Your task to perform on an android device: Go to Google maps Image 0: 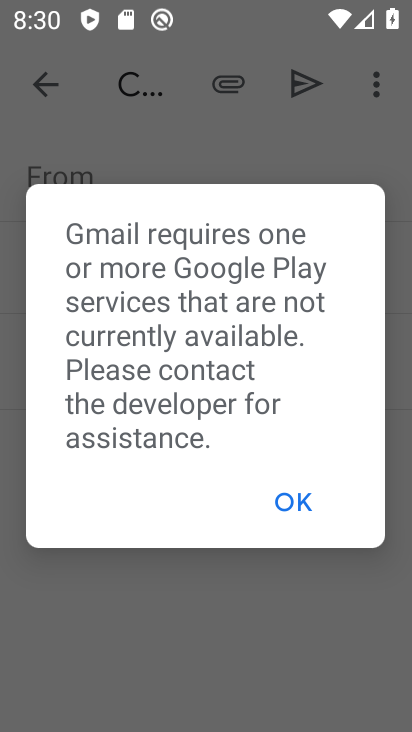
Step 0: press home button
Your task to perform on an android device: Go to Google maps Image 1: 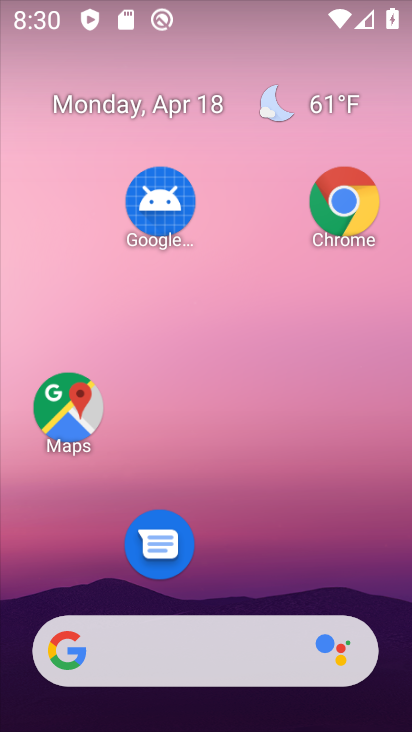
Step 1: drag from (239, 600) to (373, 680)
Your task to perform on an android device: Go to Google maps Image 2: 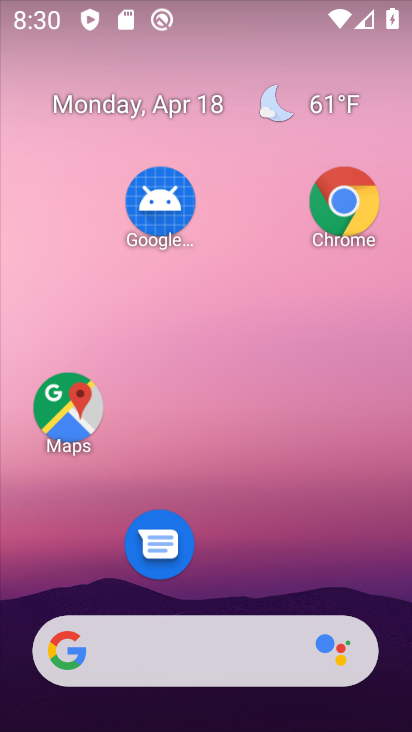
Step 2: drag from (214, 616) to (272, 16)
Your task to perform on an android device: Go to Google maps Image 3: 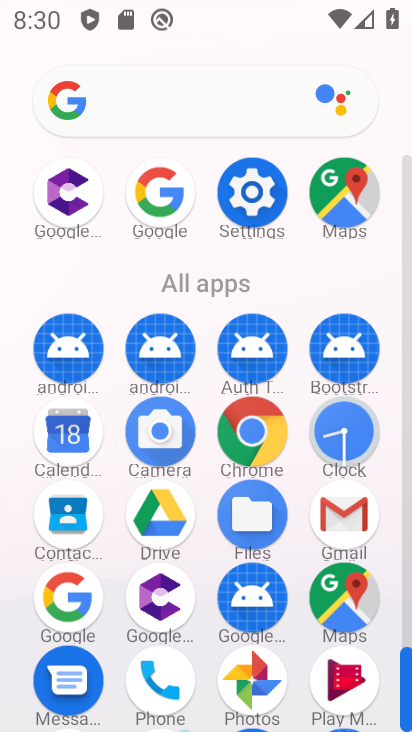
Step 3: click (346, 586)
Your task to perform on an android device: Go to Google maps Image 4: 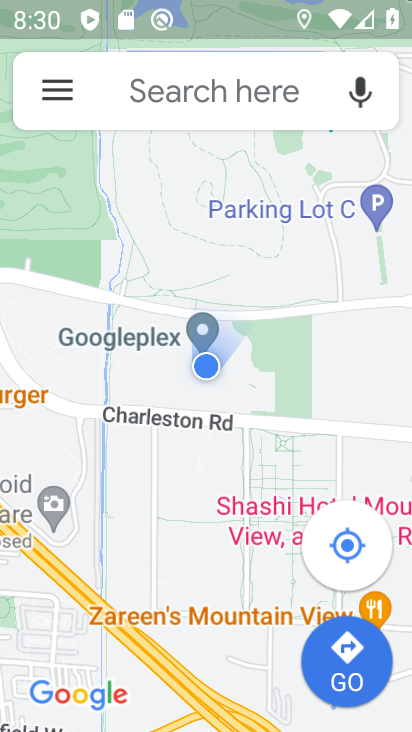
Step 4: task complete